Your task to perform on an android device: Go to Google Image 0: 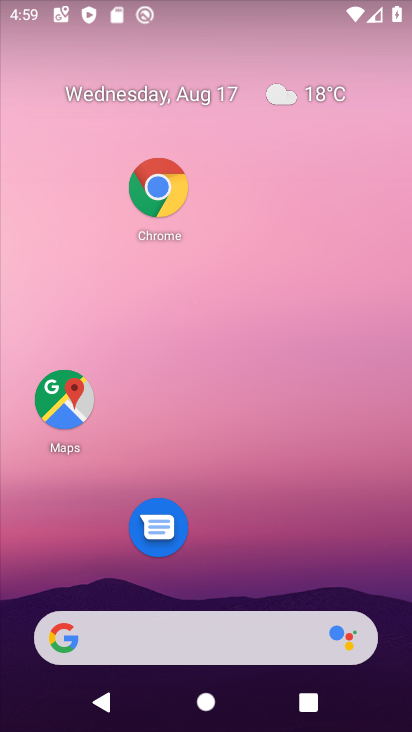
Step 0: click (183, 633)
Your task to perform on an android device: Go to Google Image 1: 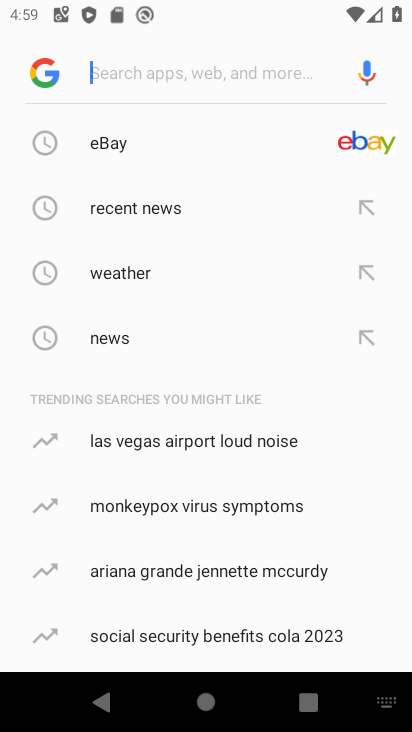
Step 1: task complete